Your task to perform on an android device: Open network settings Image 0: 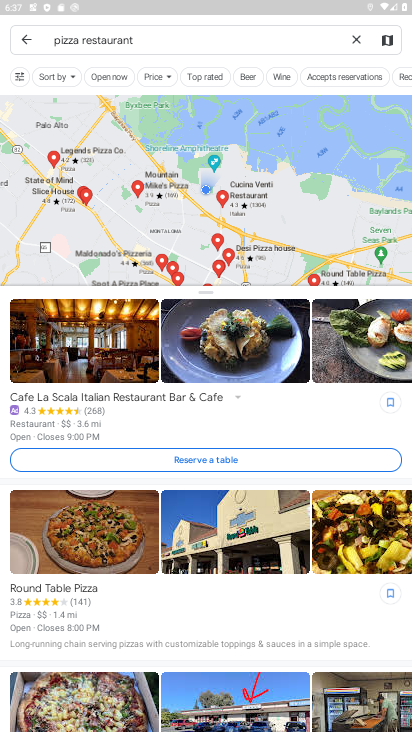
Step 0: press home button
Your task to perform on an android device: Open network settings Image 1: 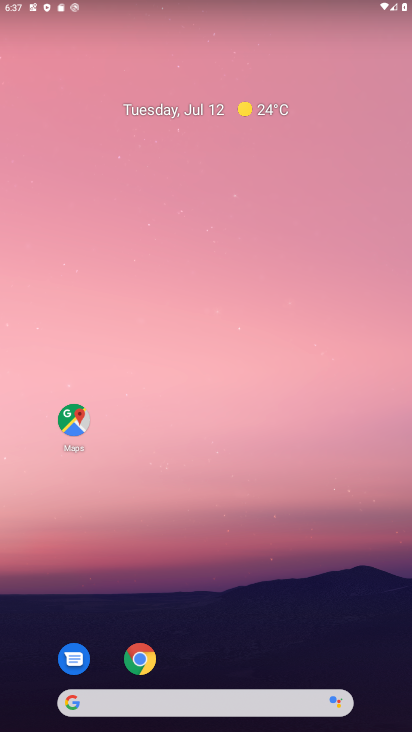
Step 1: drag from (340, 654) to (289, 0)
Your task to perform on an android device: Open network settings Image 2: 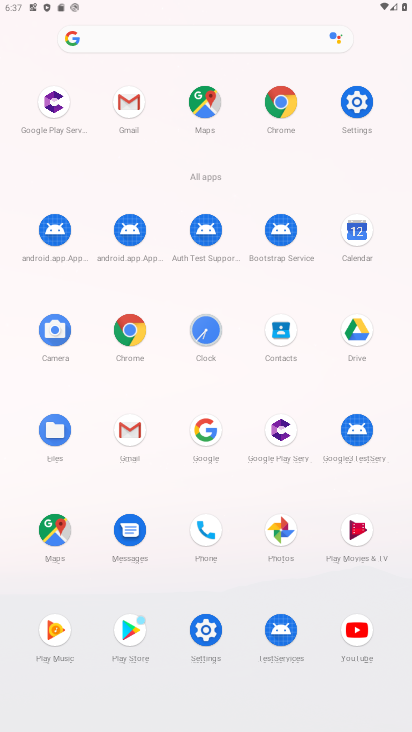
Step 2: click (346, 108)
Your task to perform on an android device: Open network settings Image 3: 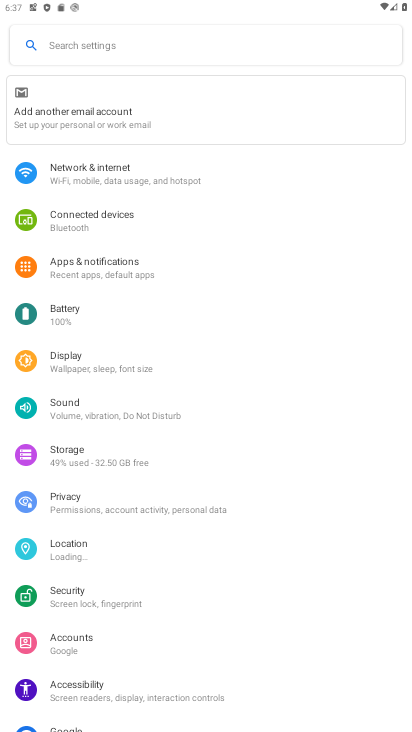
Step 3: click (81, 185)
Your task to perform on an android device: Open network settings Image 4: 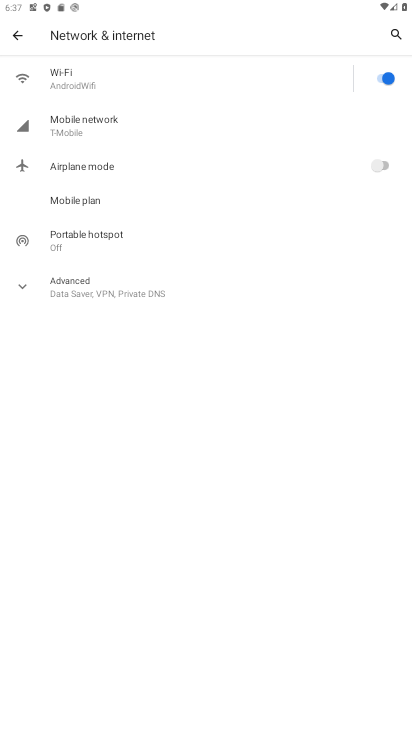
Step 4: task complete